Your task to perform on an android device: turn on showing notifications on the lock screen Image 0: 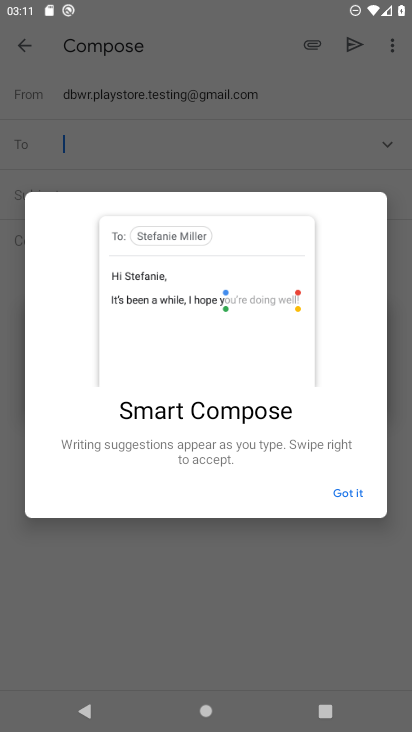
Step 0: press home button
Your task to perform on an android device: turn on showing notifications on the lock screen Image 1: 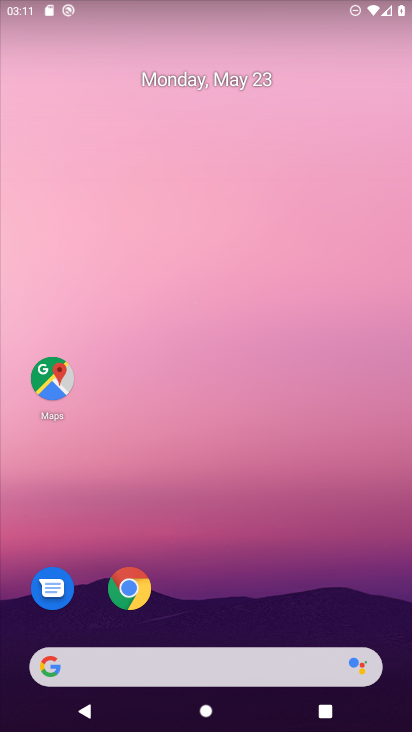
Step 1: drag from (233, 721) to (195, 59)
Your task to perform on an android device: turn on showing notifications on the lock screen Image 2: 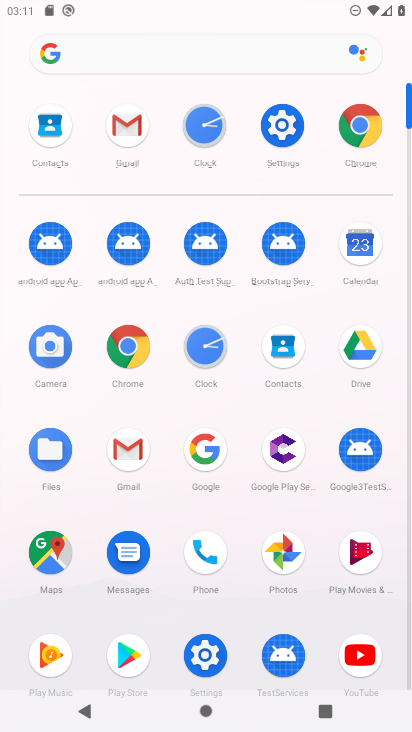
Step 2: click (284, 136)
Your task to perform on an android device: turn on showing notifications on the lock screen Image 3: 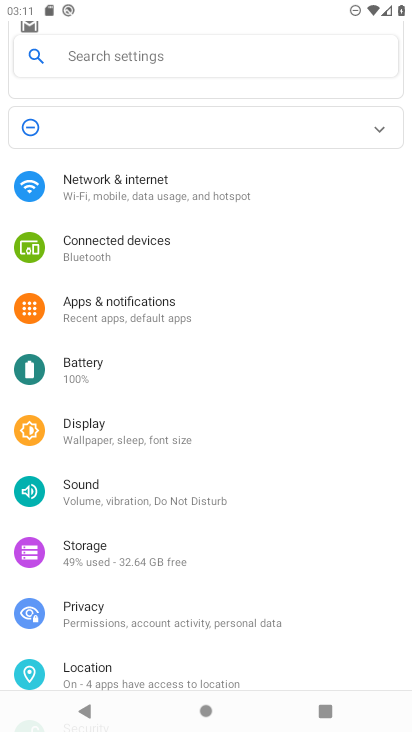
Step 3: click (145, 305)
Your task to perform on an android device: turn on showing notifications on the lock screen Image 4: 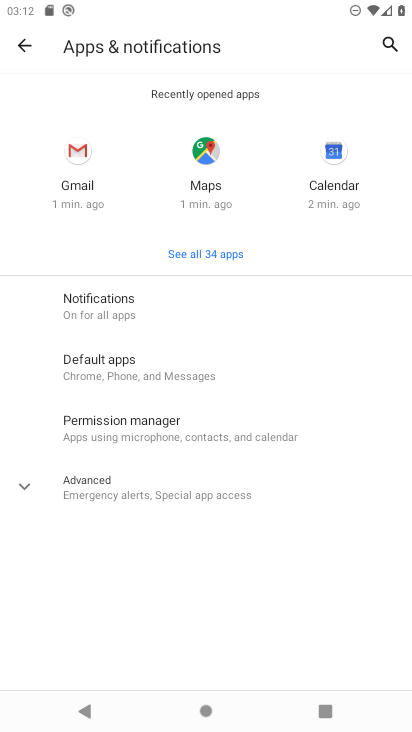
Step 4: click (106, 303)
Your task to perform on an android device: turn on showing notifications on the lock screen Image 5: 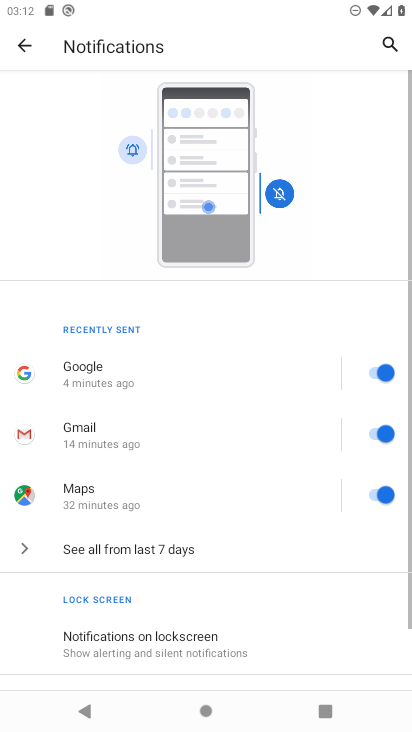
Step 5: drag from (204, 631) to (171, 248)
Your task to perform on an android device: turn on showing notifications on the lock screen Image 6: 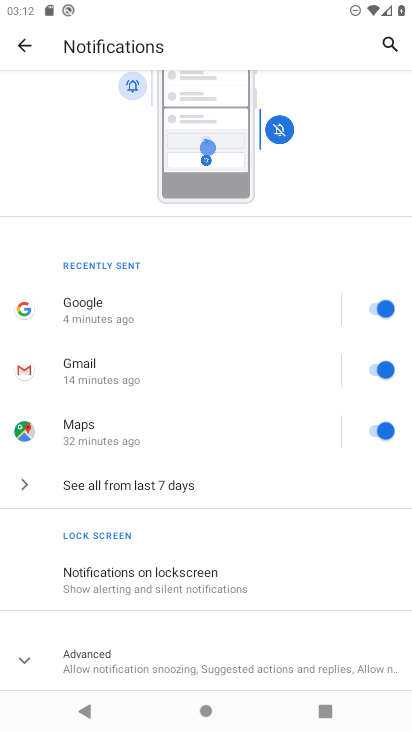
Step 6: click (160, 574)
Your task to perform on an android device: turn on showing notifications on the lock screen Image 7: 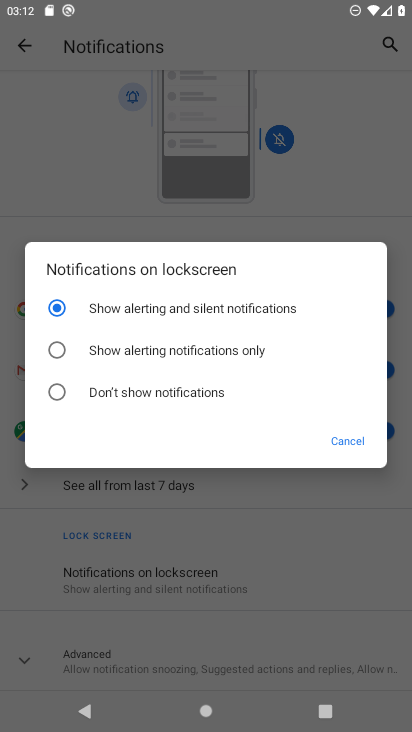
Step 7: click (344, 438)
Your task to perform on an android device: turn on showing notifications on the lock screen Image 8: 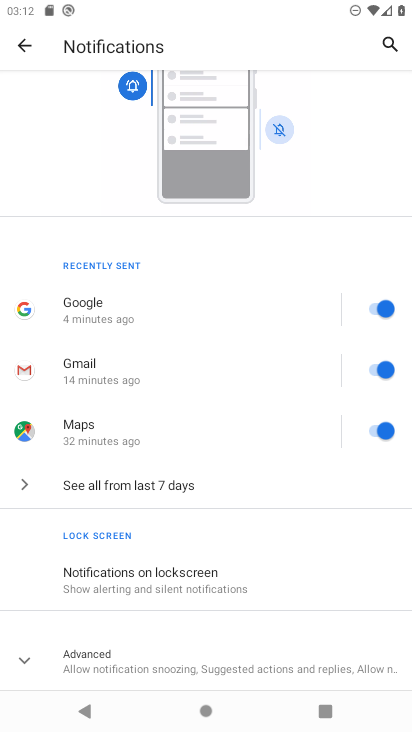
Step 8: task complete